Your task to perform on an android device: Go to calendar. Show me events next week Image 0: 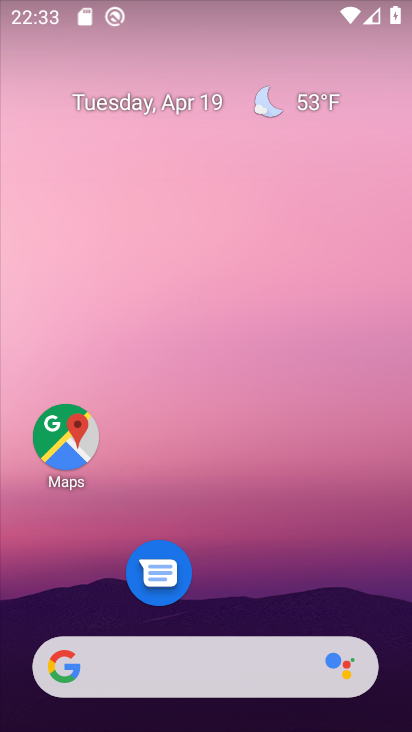
Step 0: drag from (220, 620) to (237, 32)
Your task to perform on an android device: Go to calendar. Show me events next week Image 1: 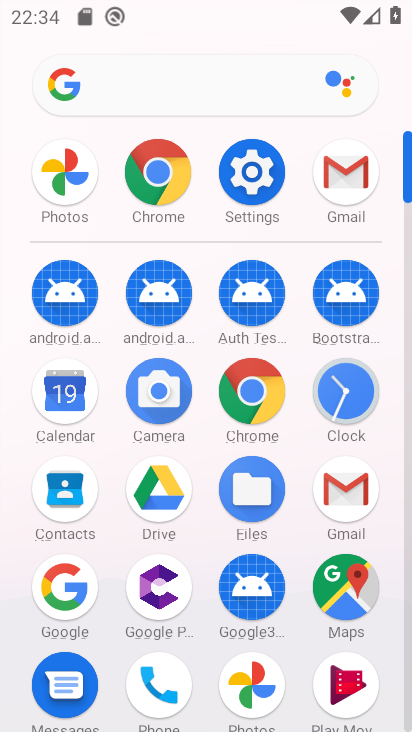
Step 1: click (63, 393)
Your task to perform on an android device: Go to calendar. Show me events next week Image 2: 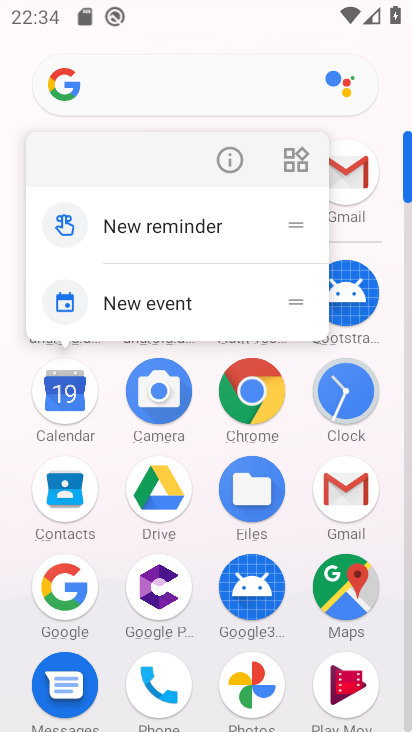
Step 2: click (67, 390)
Your task to perform on an android device: Go to calendar. Show me events next week Image 3: 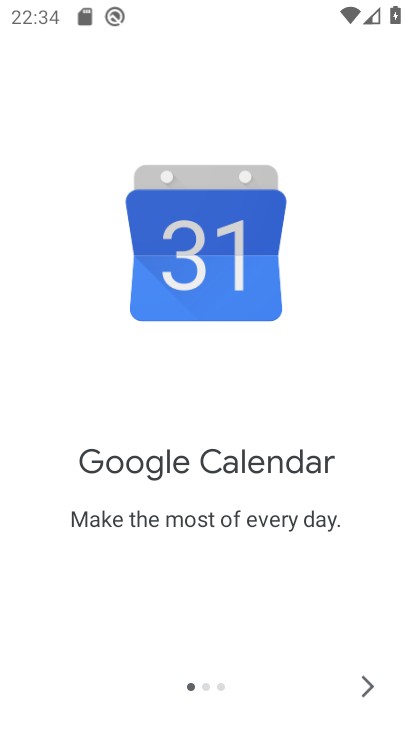
Step 3: click (365, 682)
Your task to perform on an android device: Go to calendar. Show me events next week Image 4: 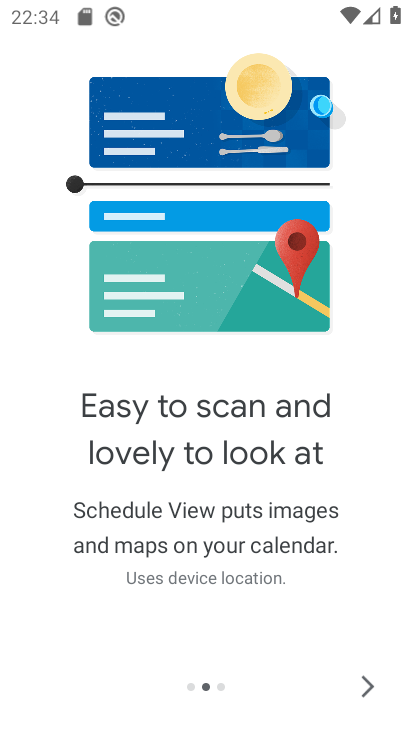
Step 4: click (365, 682)
Your task to perform on an android device: Go to calendar. Show me events next week Image 5: 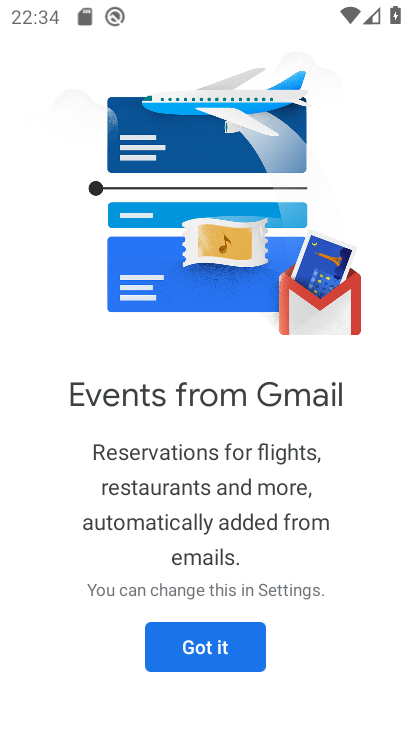
Step 5: click (207, 644)
Your task to perform on an android device: Go to calendar. Show me events next week Image 6: 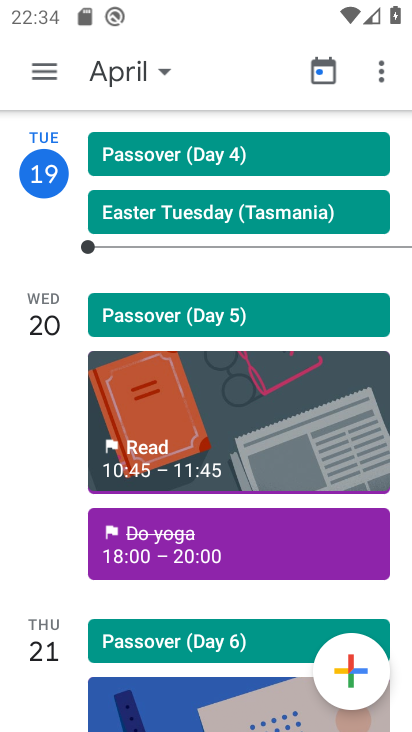
Step 6: drag from (48, 606) to (43, 115)
Your task to perform on an android device: Go to calendar. Show me events next week Image 7: 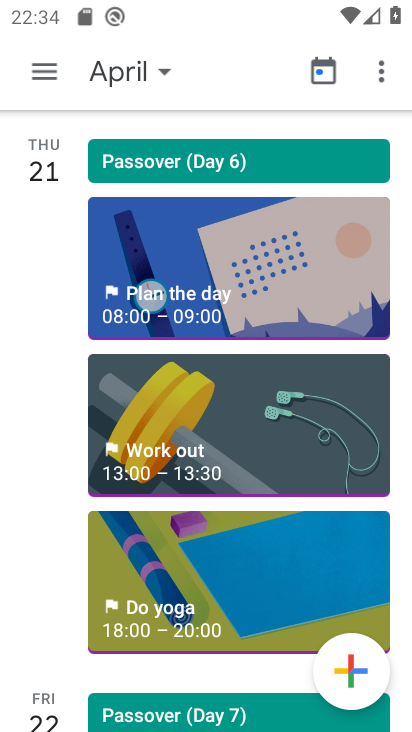
Step 7: click (38, 69)
Your task to perform on an android device: Go to calendar. Show me events next week Image 8: 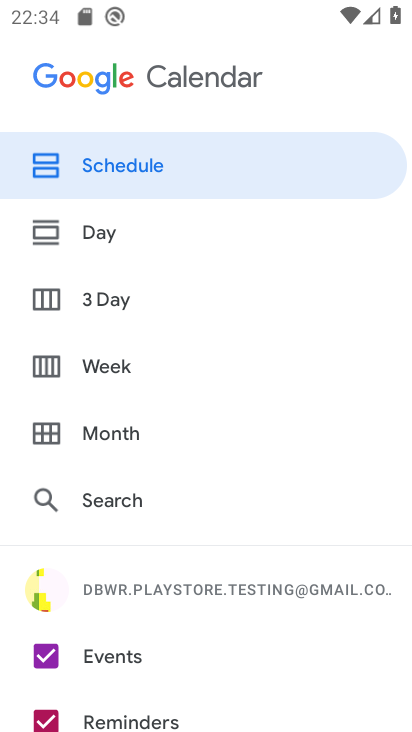
Step 8: click (74, 361)
Your task to perform on an android device: Go to calendar. Show me events next week Image 9: 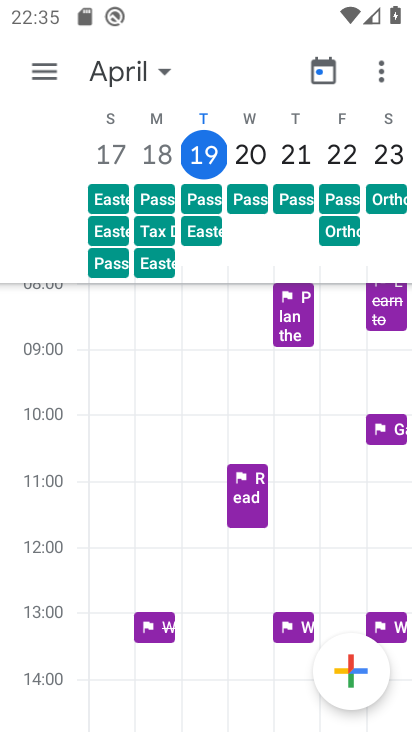
Step 9: drag from (393, 145) to (98, 148)
Your task to perform on an android device: Go to calendar. Show me events next week Image 10: 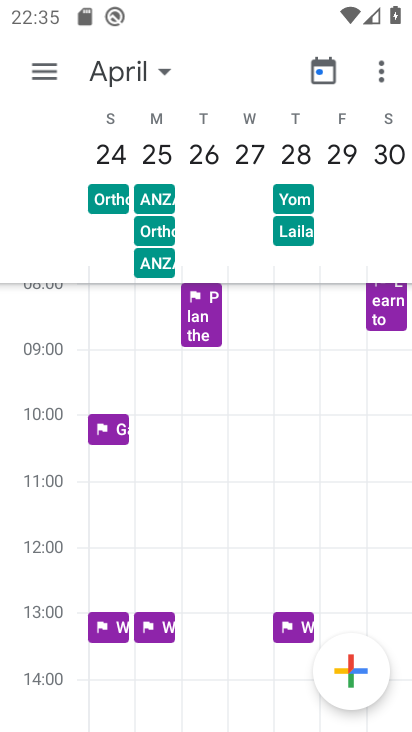
Step 10: click (35, 69)
Your task to perform on an android device: Go to calendar. Show me events next week Image 11: 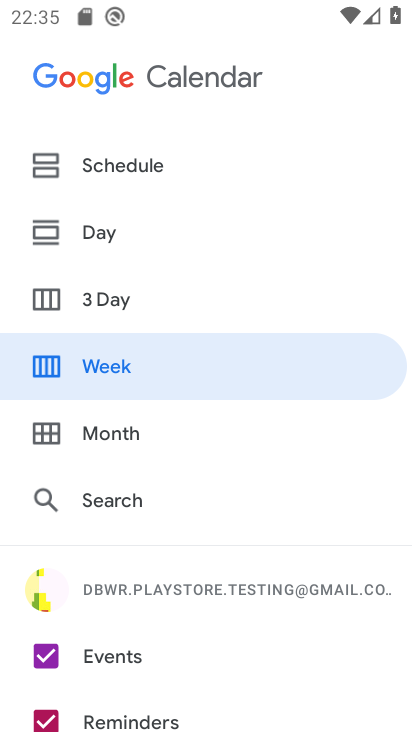
Step 11: drag from (130, 675) to (119, 247)
Your task to perform on an android device: Go to calendar. Show me events next week Image 12: 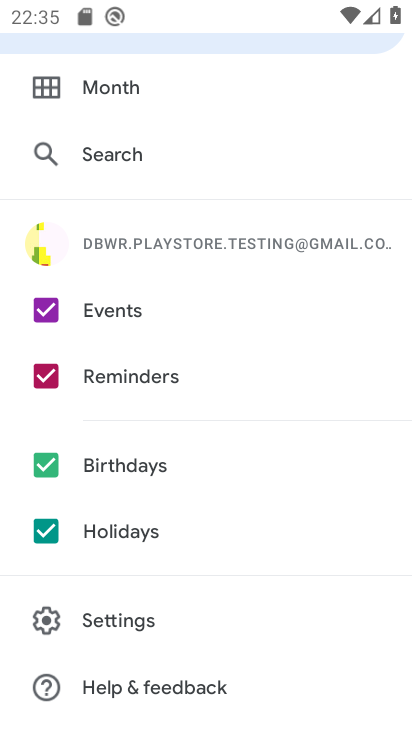
Step 12: click (46, 371)
Your task to perform on an android device: Go to calendar. Show me events next week Image 13: 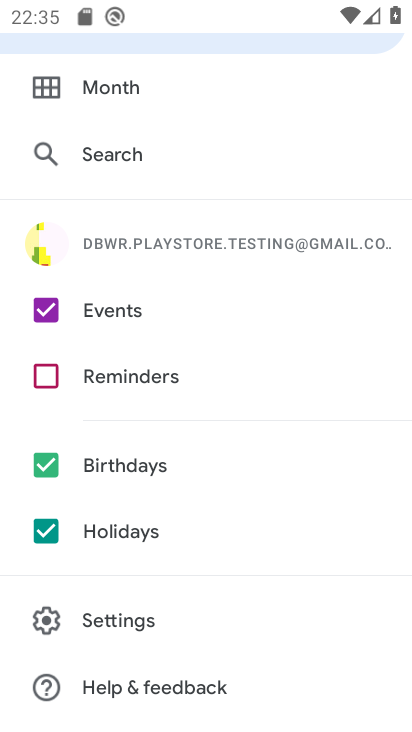
Step 13: click (48, 469)
Your task to perform on an android device: Go to calendar. Show me events next week Image 14: 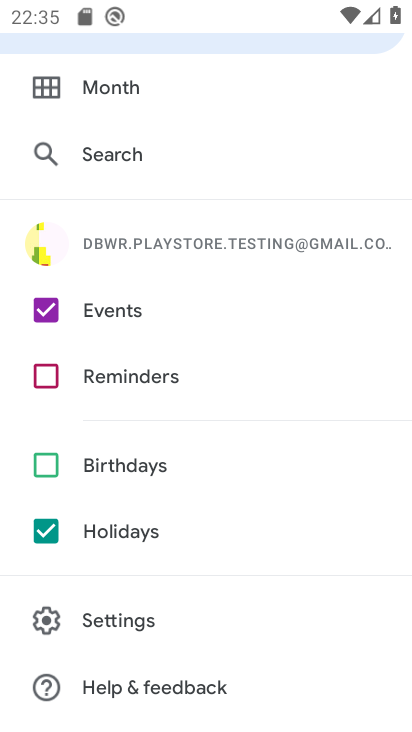
Step 14: click (48, 537)
Your task to perform on an android device: Go to calendar. Show me events next week Image 15: 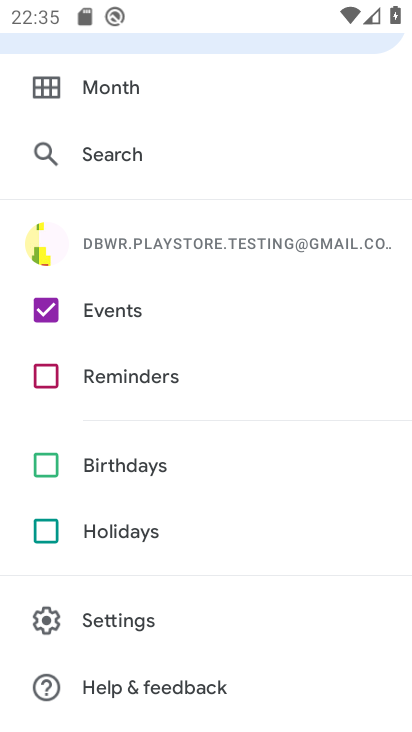
Step 15: drag from (91, 205) to (91, 539)
Your task to perform on an android device: Go to calendar. Show me events next week Image 16: 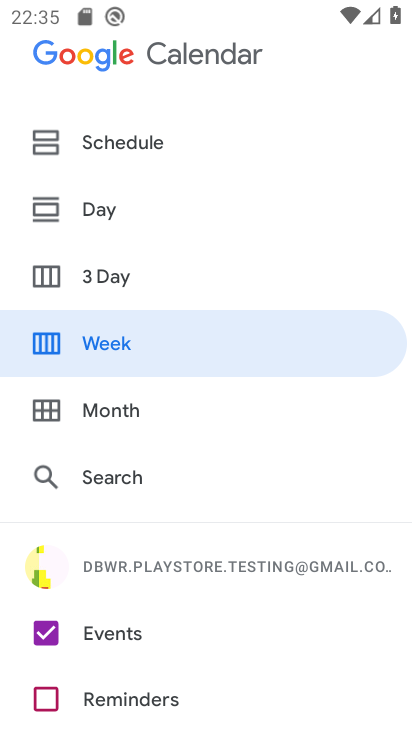
Step 16: click (67, 342)
Your task to perform on an android device: Go to calendar. Show me events next week Image 17: 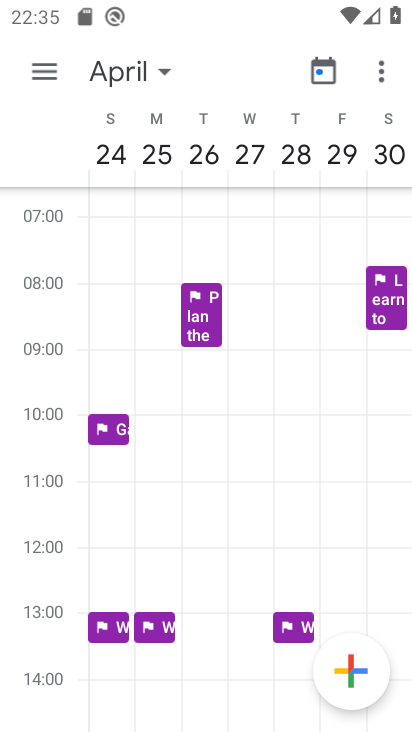
Step 17: click (110, 149)
Your task to perform on an android device: Go to calendar. Show me events next week Image 18: 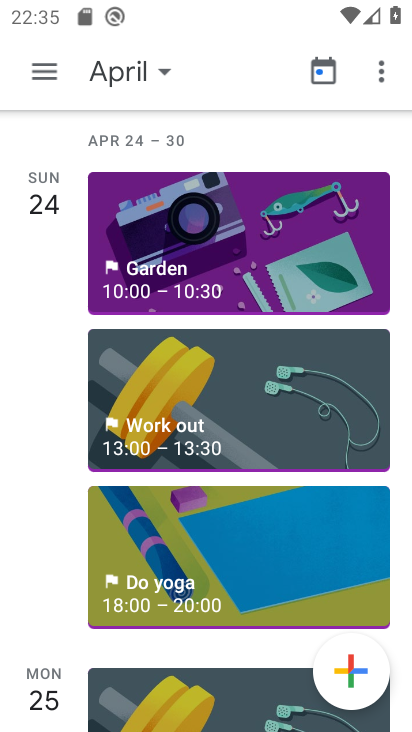
Step 18: task complete